Your task to perform on an android device: Go to internet settings Image 0: 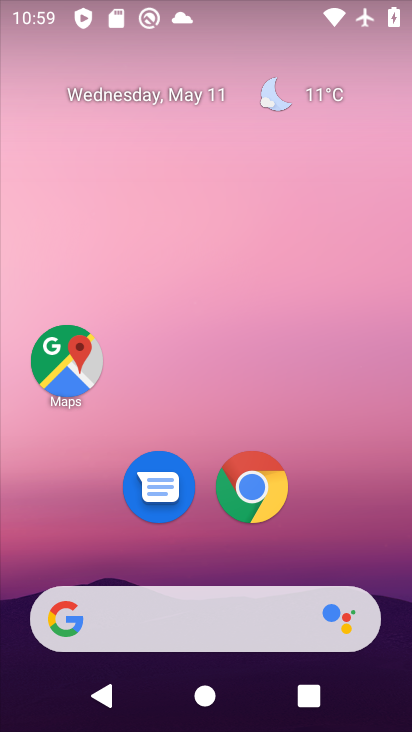
Step 0: drag from (344, 517) to (258, 5)
Your task to perform on an android device: Go to internet settings Image 1: 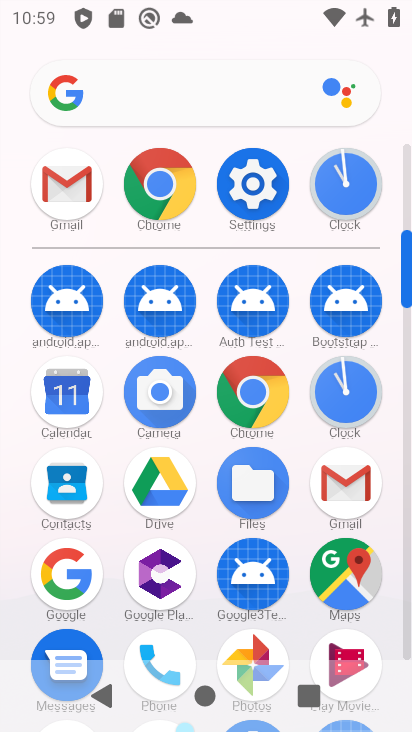
Step 1: drag from (6, 527) to (20, 276)
Your task to perform on an android device: Go to internet settings Image 2: 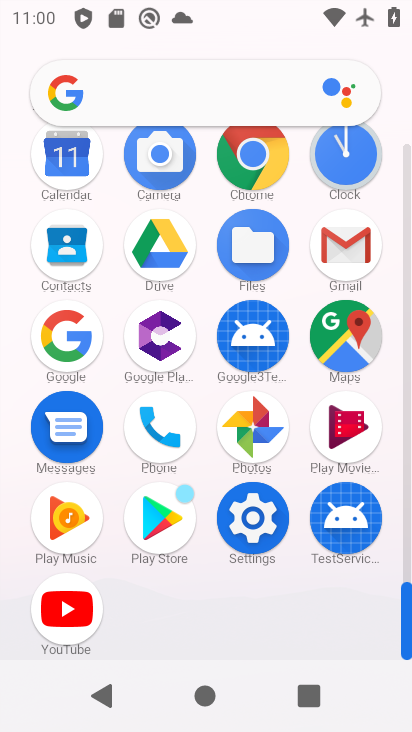
Step 2: click (251, 516)
Your task to perform on an android device: Go to internet settings Image 3: 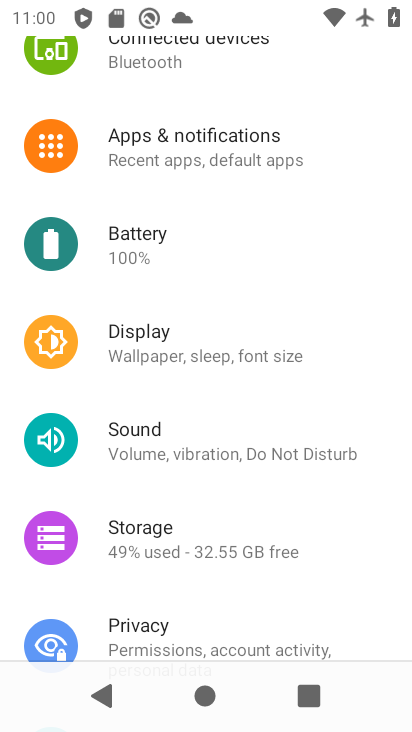
Step 3: drag from (289, 120) to (327, 512)
Your task to perform on an android device: Go to internet settings Image 4: 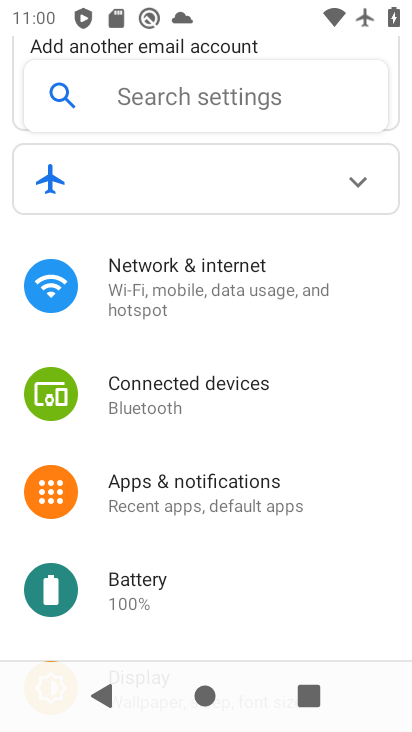
Step 4: click (205, 283)
Your task to perform on an android device: Go to internet settings Image 5: 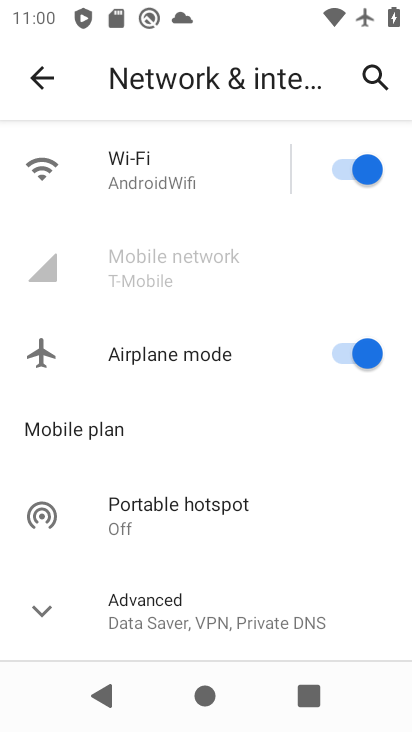
Step 5: click (43, 606)
Your task to perform on an android device: Go to internet settings Image 6: 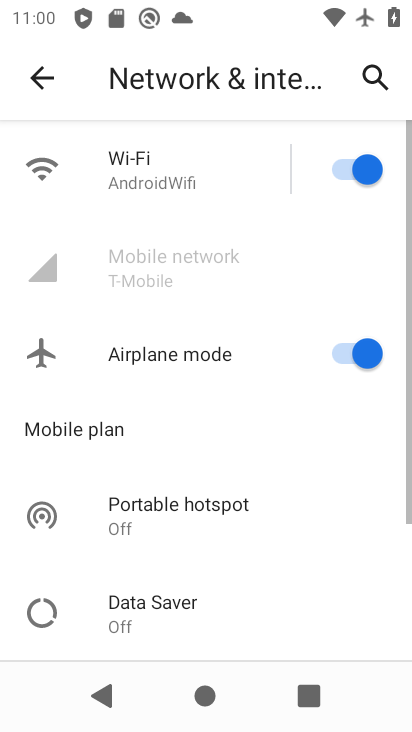
Step 6: task complete